Your task to perform on an android device: check data usage Image 0: 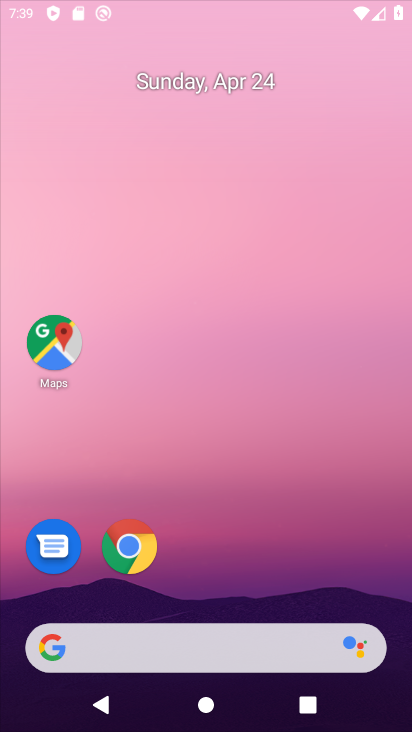
Step 0: click (408, 163)
Your task to perform on an android device: check data usage Image 1: 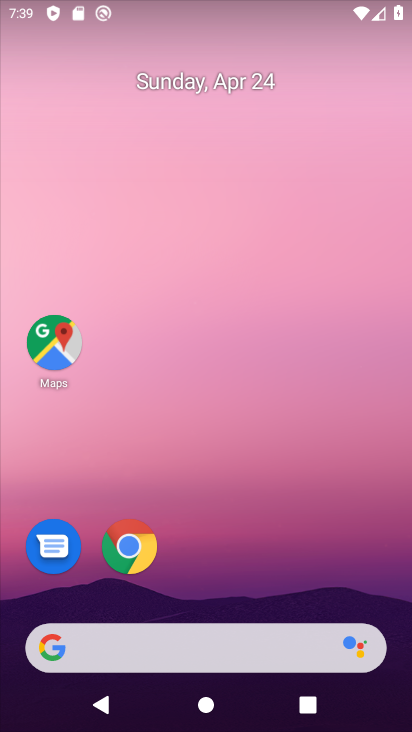
Step 1: drag from (175, 610) to (247, 8)
Your task to perform on an android device: check data usage Image 2: 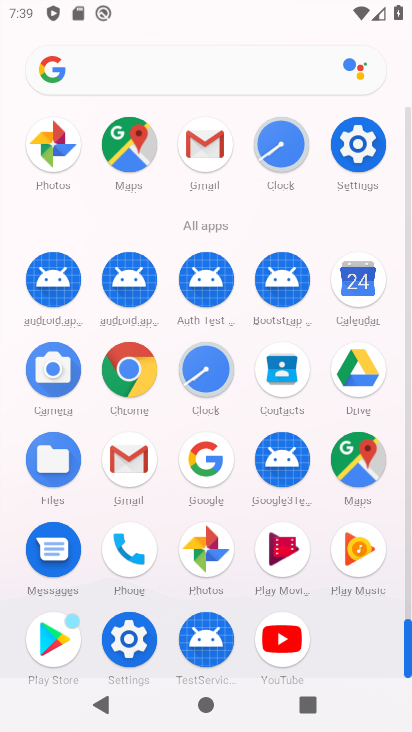
Step 2: click (132, 646)
Your task to perform on an android device: check data usage Image 3: 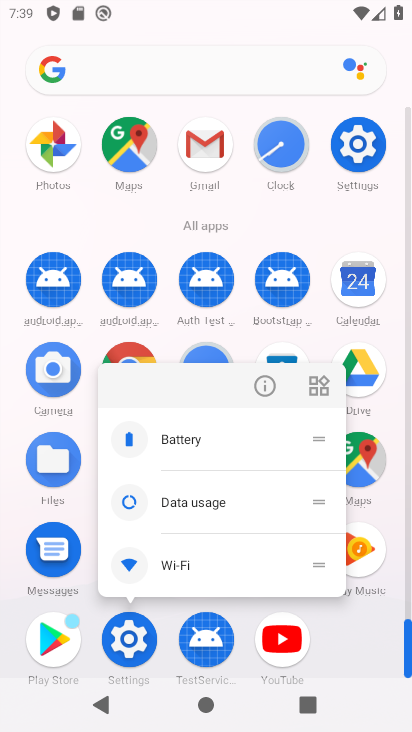
Step 3: click (267, 392)
Your task to perform on an android device: check data usage Image 4: 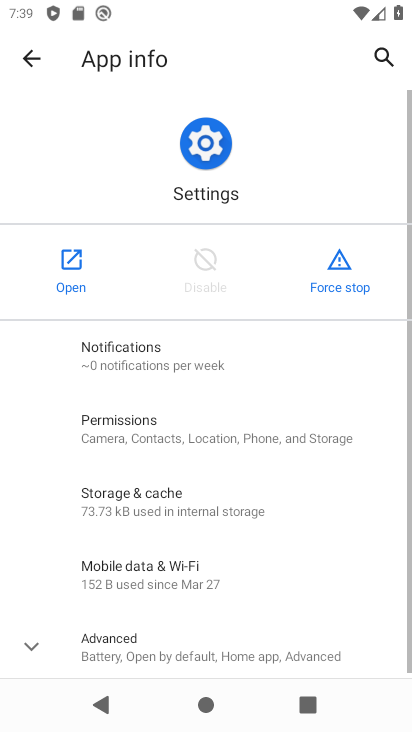
Step 4: click (81, 251)
Your task to perform on an android device: check data usage Image 5: 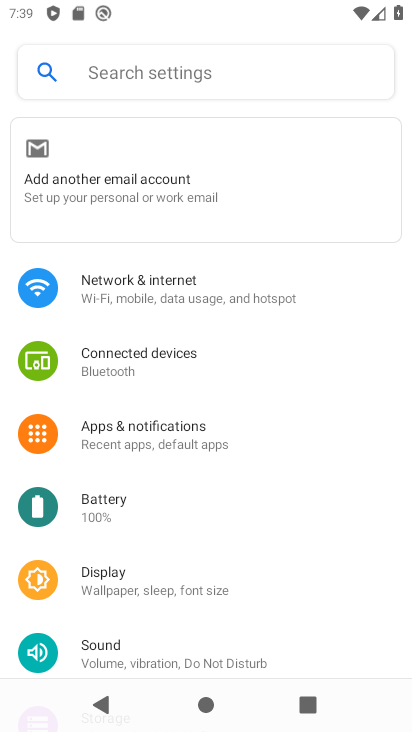
Step 5: click (151, 269)
Your task to perform on an android device: check data usage Image 6: 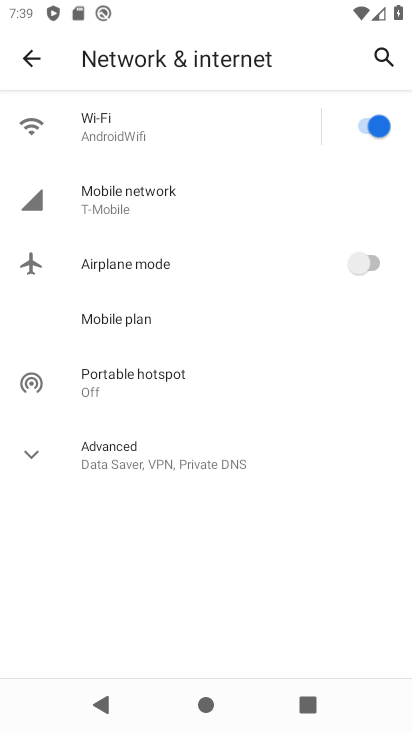
Step 6: click (167, 191)
Your task to perform on an android device: check data usage Image 7: 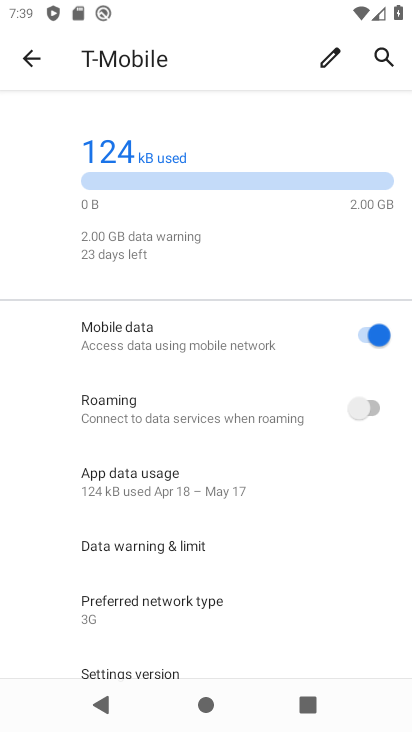
Step 7: drag from (210, 187) to (230, 512)
Your task to perform on an android device: check data usage Image 8: 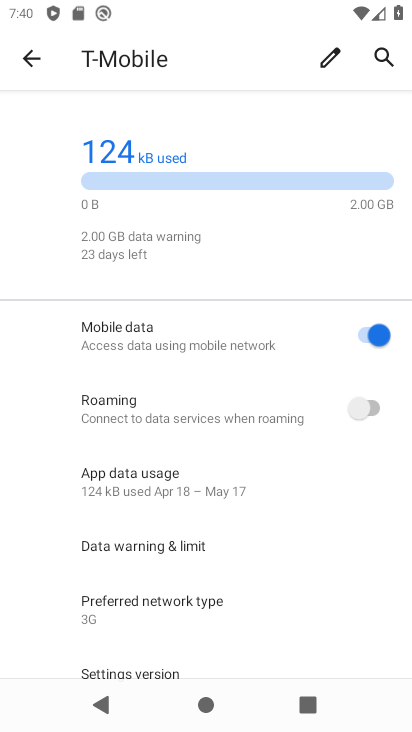
Step 8: drag from (233, 241) to (319, 608)
Your task to perform on an android device: check data usage Image 9: 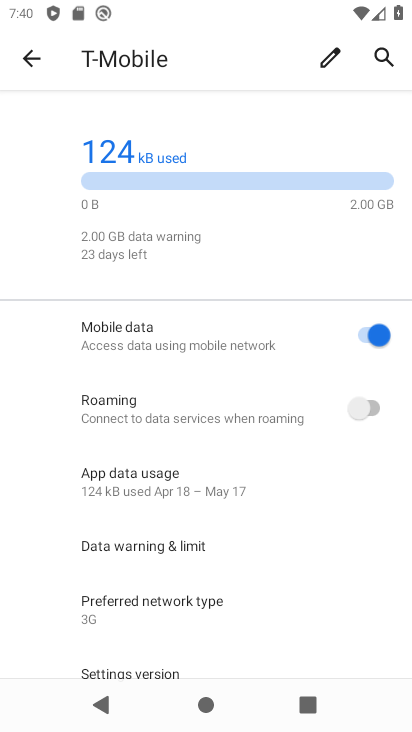
Step 9: click (105, 149)
Your task to perform on an android device: check data usage Image 10: 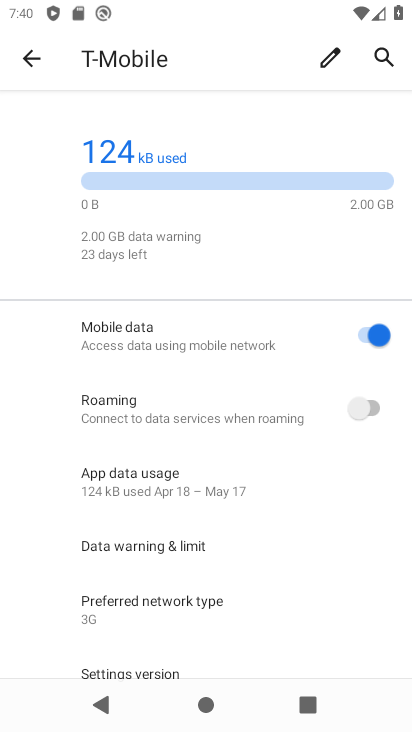
Step 10: task complete